Your task to perform on an android device: Search for "dell xps" on costco, select the first entry, add it to the cart, then select checkout. Image 0: 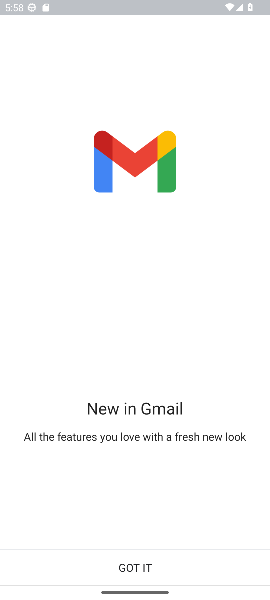
Step 0: press home button
Your task to perform on an android device: Search for "dell xps" on costco, select the first entry, add it to the cart, then select checkout. Image 1: 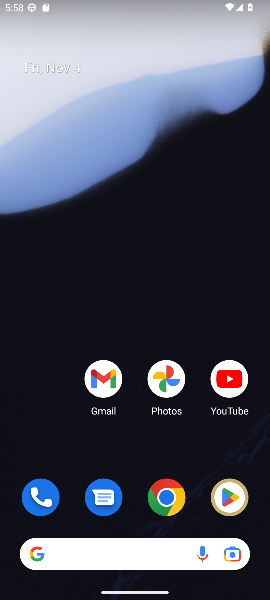
Step 1: click (173, 495)
Your task to perform on an android device: Search for "dell xps" on costco, select the first entry, add it to the cart, then select checkout. Image 2: 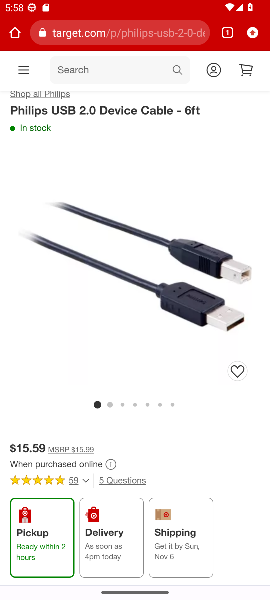
Step 2: click (93, 33)
Your task to perform on an android device: Search for "dell xps" on costco, select the first entry, add it to the cart, then select checkout. Image 3: 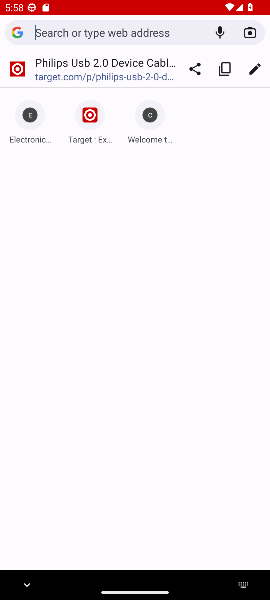
Step 3: type "costco.com"
Your task to perform on an android device: Search for "dell xps" on costco, select the first entry, add it to the cart, then select checkout. Image 4: 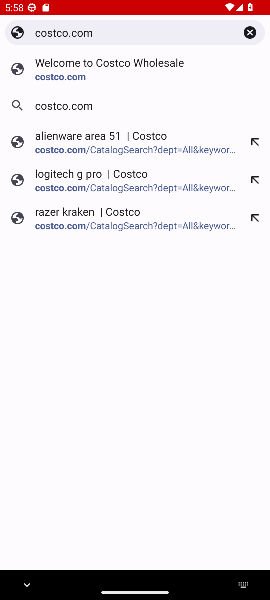
Step 4: click (44, 80)
Your task to perform on an android device: Search for "dell xps" on costco, select the first entry, add it to the cart, then select checkout. Image 5: 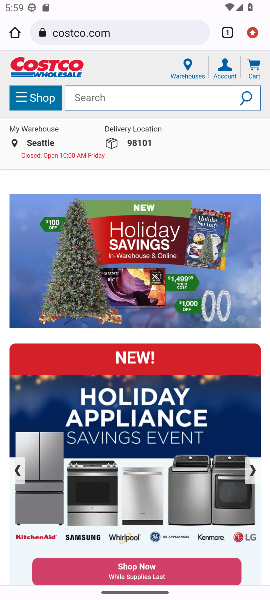
Step 5: type "dell xps"
Your task to perform on an android device: Search for "dell xps" on costco, select the first entry, add it to the cart, then select checkout. Image 6: 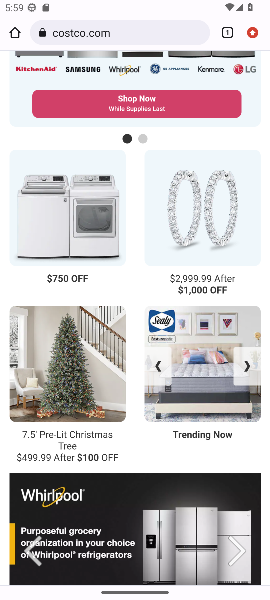
Step 6: drag from (178, 168) to (175, 493)
Your task to perform on an android device: Search for "dell xps" on costco, select the first entry, add it to the cart, then select checkout. Image 7: 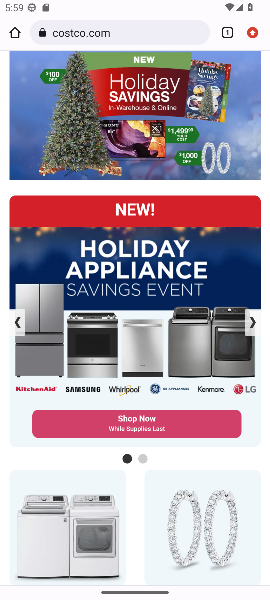
Step 7: drag from (170, 188) to (145, 502)
Your task to perform on an android device: Search for "dell xps" on costco, select the first entry, add it to the cart, then select checkout. Image 8: 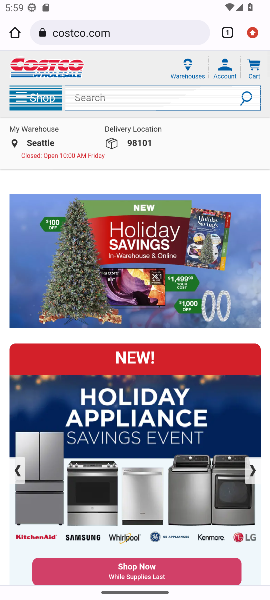
Step 8: click (87, 96)
Your task to perform on an android device: Search for "dell xps" on costco, select the first entry, add it to the cart, then select checkout. Image 9: 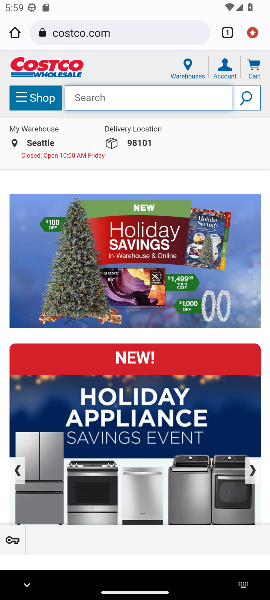
Step 9: type "dell xps"
Your task to perform on an android device: Search for "dell xps" on costco, select the first entry, add it to the cart, then select checkout. Image 10: 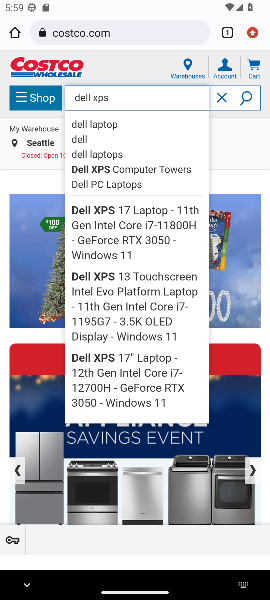
Step 10: click (247, 95)
Your task to perform on an android device: Search for "dell xps" on costco, select the first entry, add it to the cart, then select checkout. Image 11: 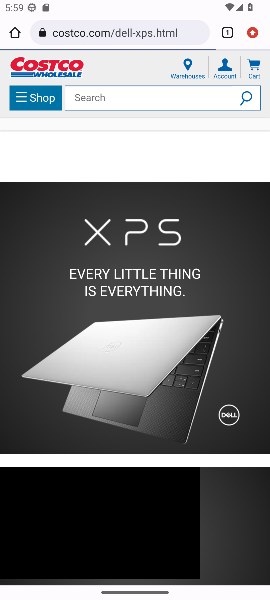
Step 11: task complete